Your task to perform on an android device: Open Yahoo.com Image 0: 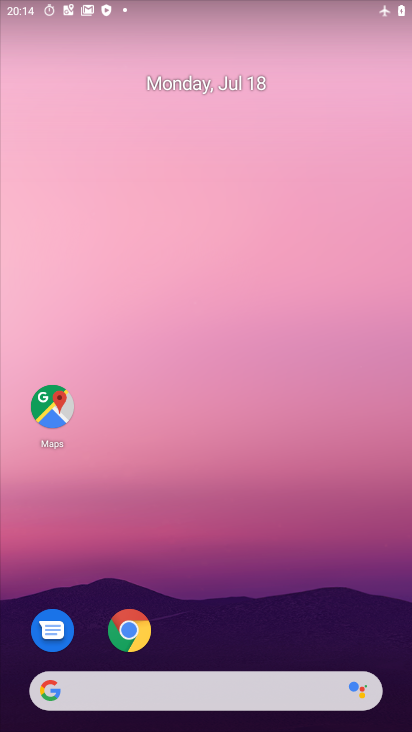
Step 0: drag from (321, 622) to (257, 42)
Your task to perform on an android device: Open Yahoo.com Image 1: 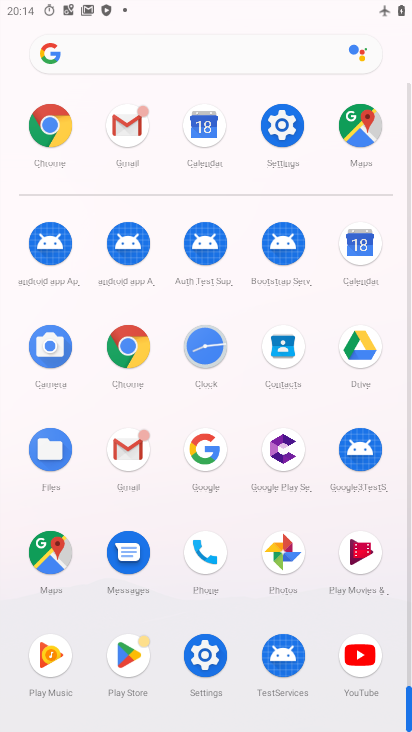
Step 1: click (53, 144)
Your task to perform on an android device: Open Yahoo.com Image 2: 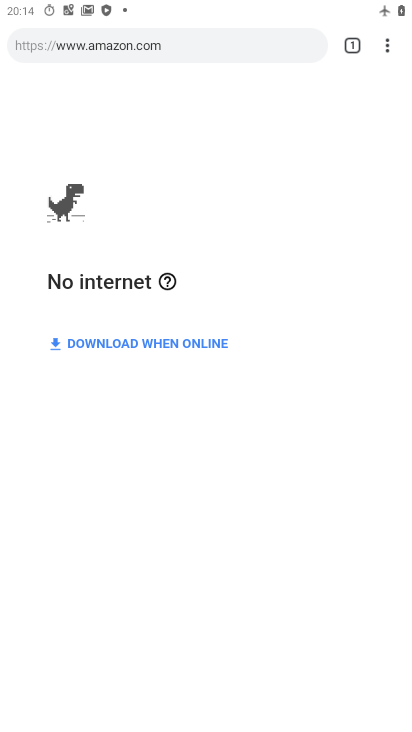
Step 2: task complete